Your task to perform on an android device: open sync settings in chrome Image 0: 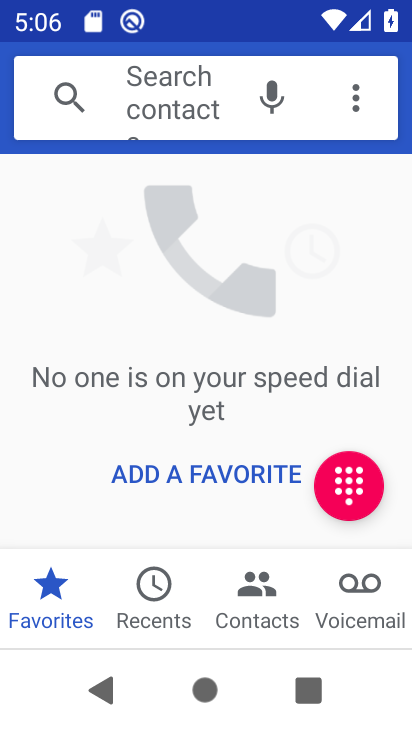
Step 0: press home button
Your task to perform on an android device: open sync settings in chrome Image 1: 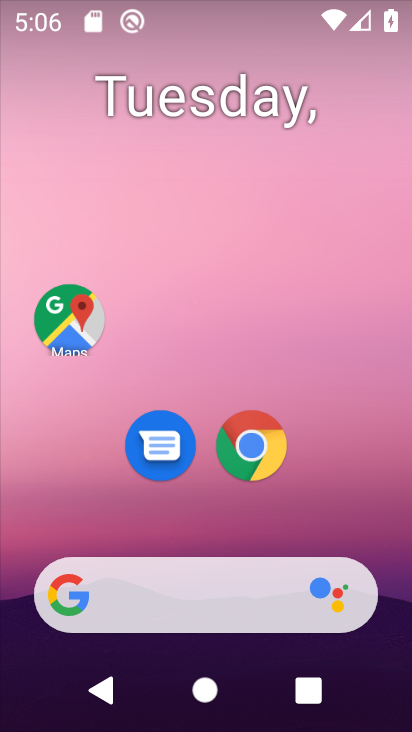
Step 1: click (252, 470)
Your task to perform on an android device: open sync settings in chrome Image 2: 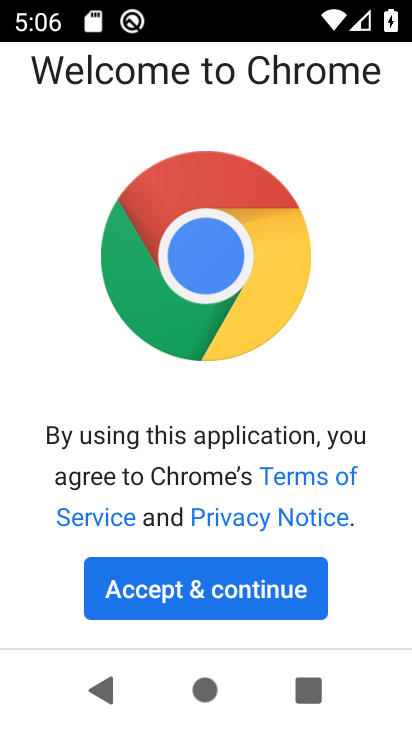
Step 2: click (235, 585)
Your task to perform on an android device: open sync settings in chrome Image 3: 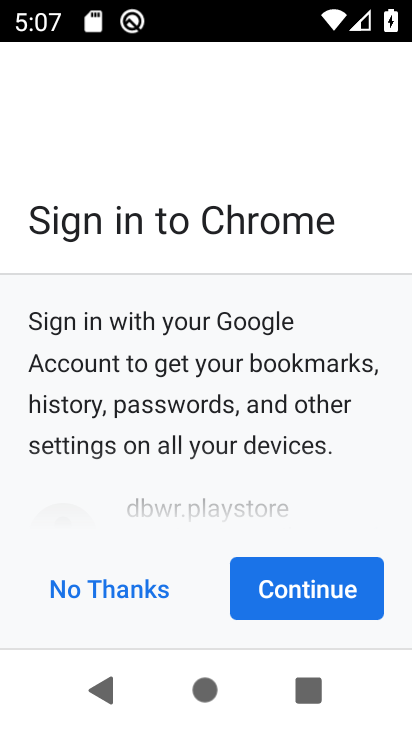
Step 3: click (271, 586)
Your task to perform on an android device: open sync settings in chrome Image 4: 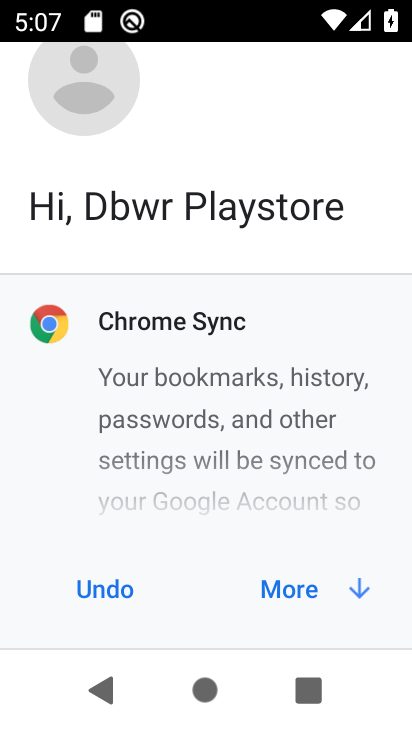
Step 4: click (279, 588)
Your task to perform on an android device: open sync settings in chrome Image 5: 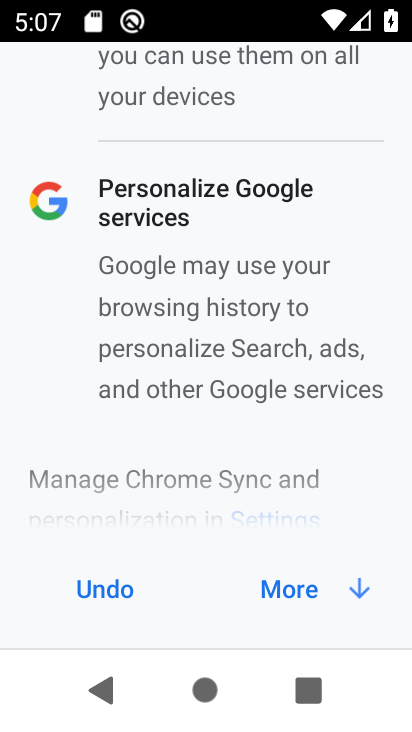
Step 5: click (279, 588)
Your task to perform on an android device: open sync settings in chrome Image 6: 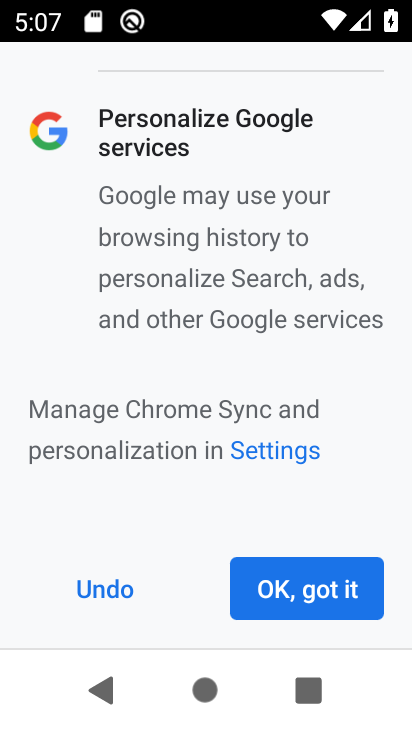
Step 6: click (291, 600)
Your task to perform on an android device: open sync settings in chrome Image 7: 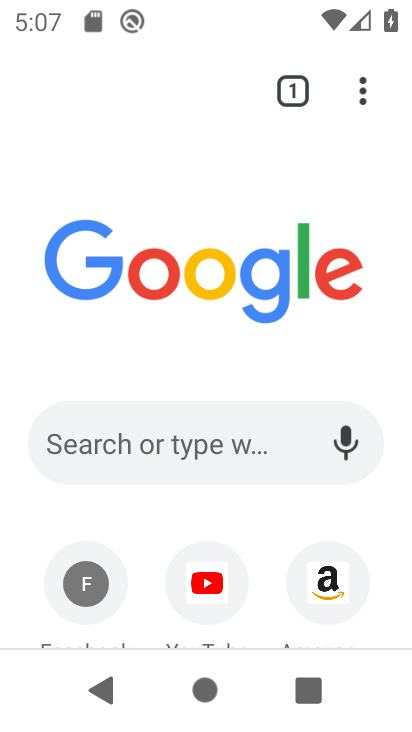
Step 7: click (369, 98)
Your task to perform on an android device: open sync settings in chrome Image 8: 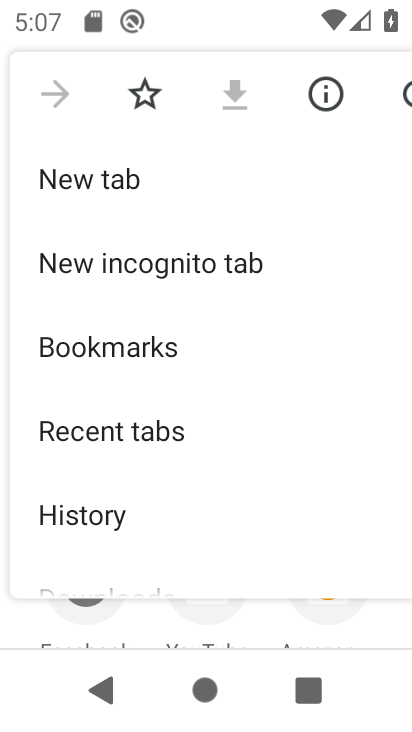
Step 8: drag from (211, 436) to (215, 73)
Your task to perform on an android device: open sync settings in chrome Image 9: 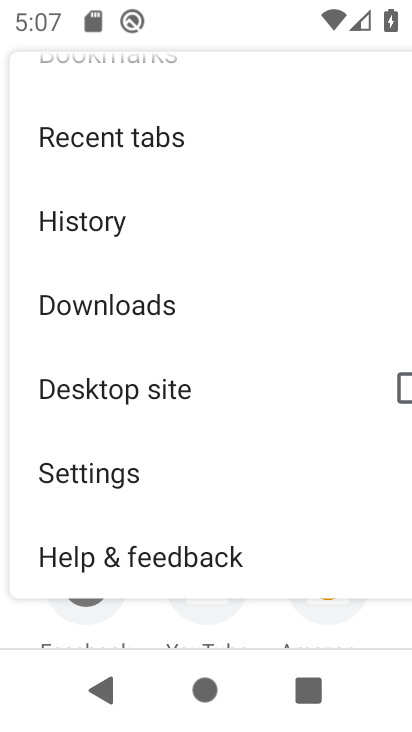
Step 9: click (153, 491)
Your task to perform on an android device: open sync settings in chrome Image 10: 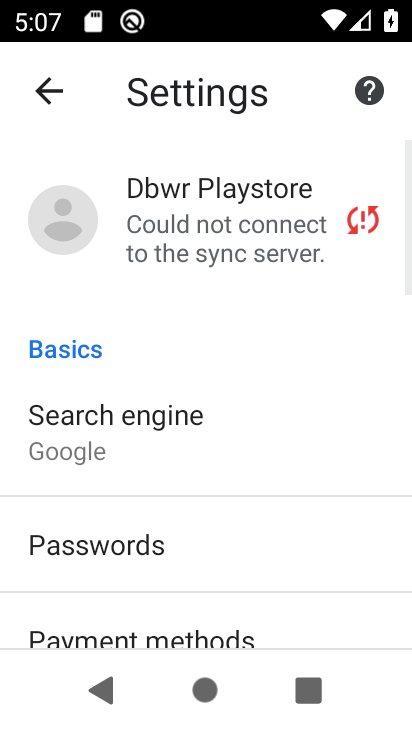
Step 10: click (181, 225)
Your task to perform on an android device: open sync settings in chrome Image 11: 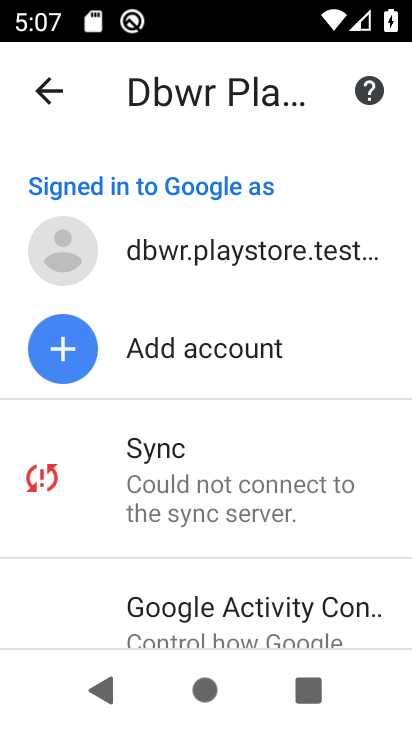
Step 11: click (183, 483)
Your task to perform on an android device: open sync settings in chrome Image 12: 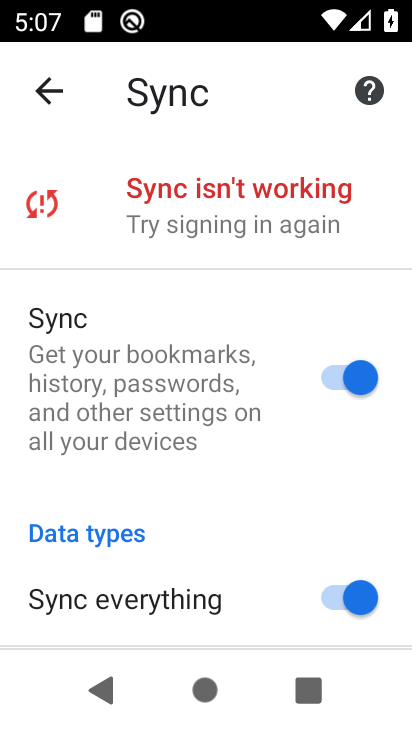
Step 12: task complete